Your task to perform on an android device: Play the last video I watched on Youtube Image 0: 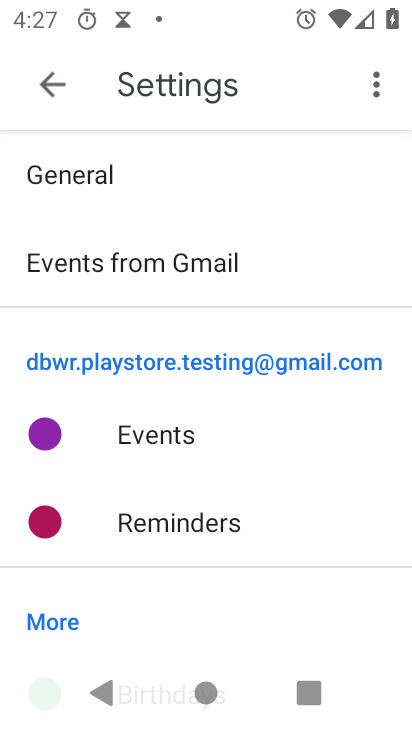
Step 0: press home button
Your task to perform on an android device: Play the last video I watched on Youtube Image 1: 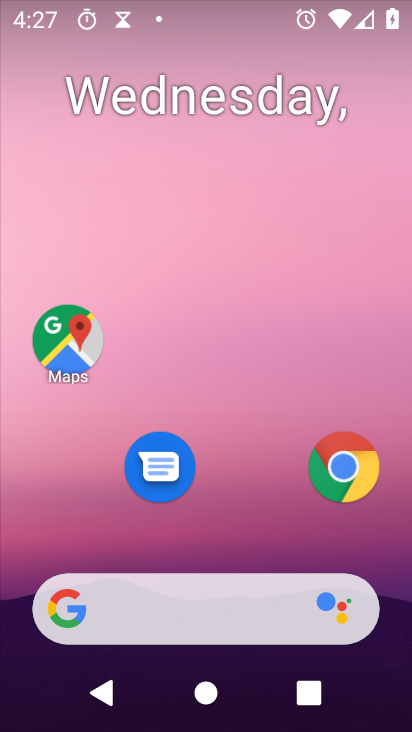
Step 1: drag from (269, 550) to (214, 242)
Your task to perform on an android device: Play the last video I watched on Youtube Image 2: 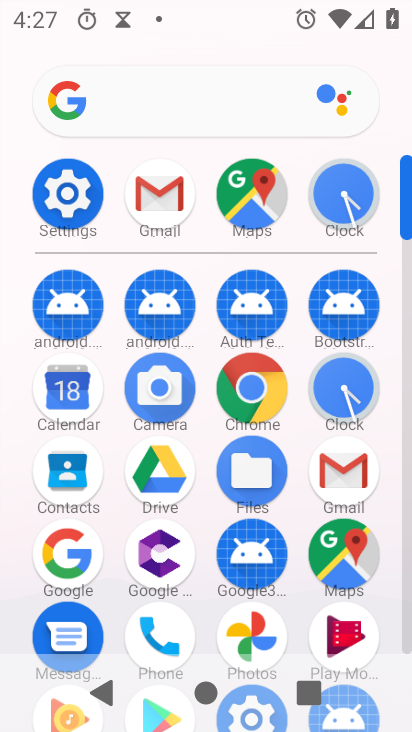
Step 2: click (405, 647)
Your task to perform on an android device: Play the last video I watched on Youtube Image 3: 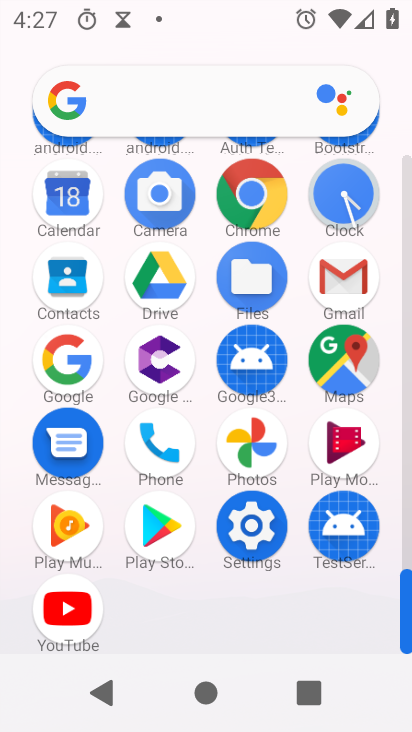
Step 3: click (52, 627)
Your task to perform on an android device: Play the last video I watched on Youtube Image 4: 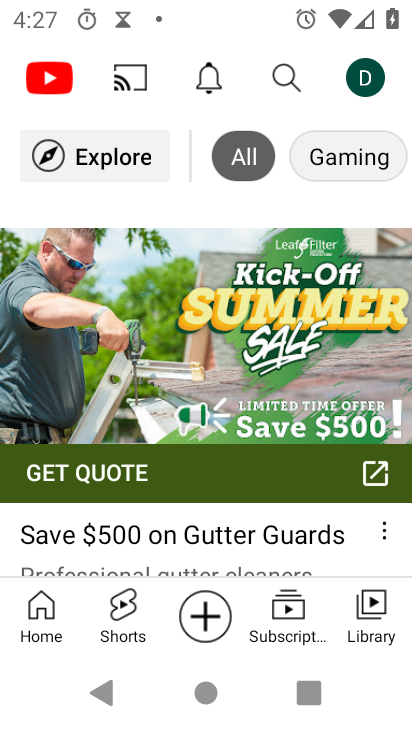
Step 4: click (353, 629)
Your task to perform on an android device: Play the last video I watched on Youtube Image 5: 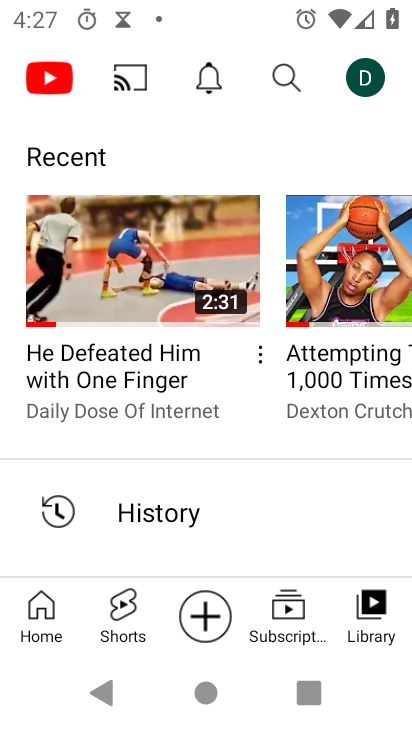
Step 5: click (162, 232)
Your task to perform on an android device: Play the last video I watched on Youtube Image 6: 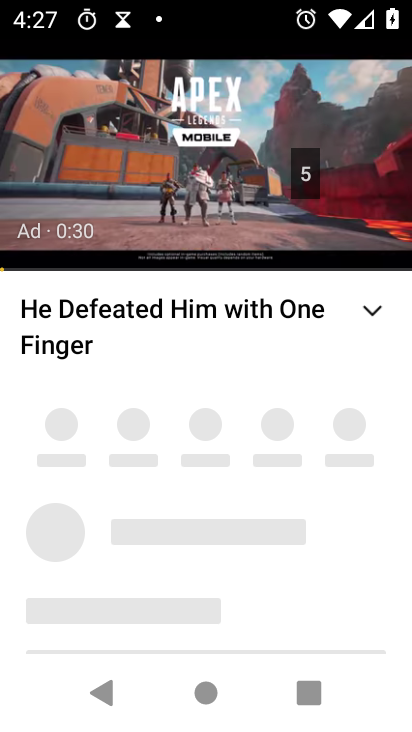
Step 6: task complete